Your task to perform on an android device: Go to wifi settings Image 0: 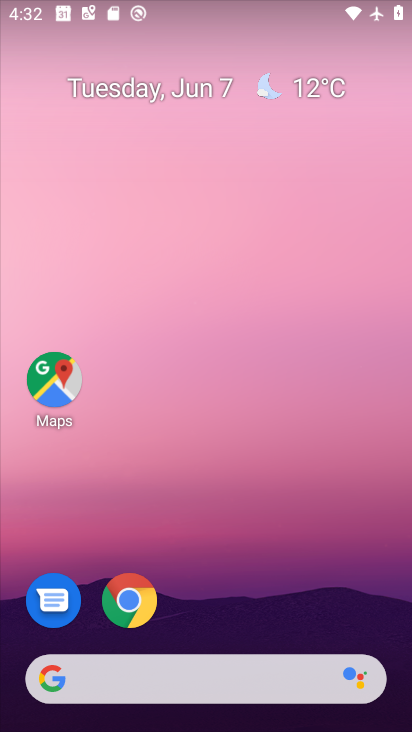
Step 0: drag from (221, 620) to (184, 257)
Your task to perform on an android device: Go to wifi settings Image 1: 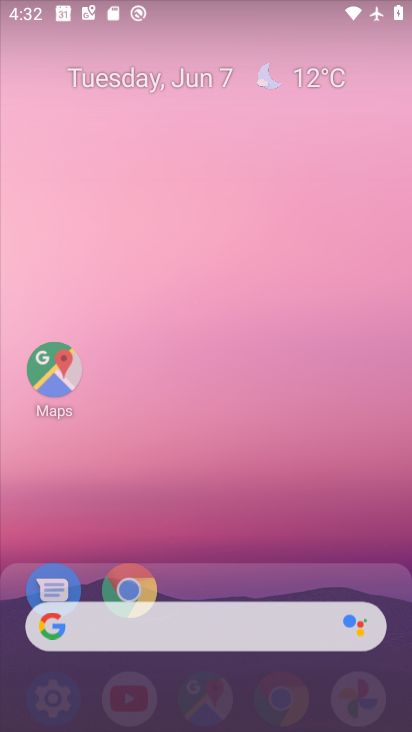
Step 1: click (172, 125)
Your task to perform on an android device: Go to wifi settings Image 2: 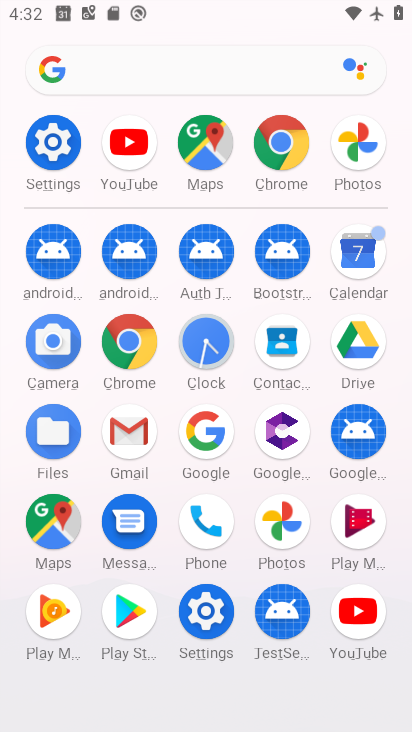
Step 2: click (57, 153)
Your task to perform on an android device: Go to wifi settings Image 3: 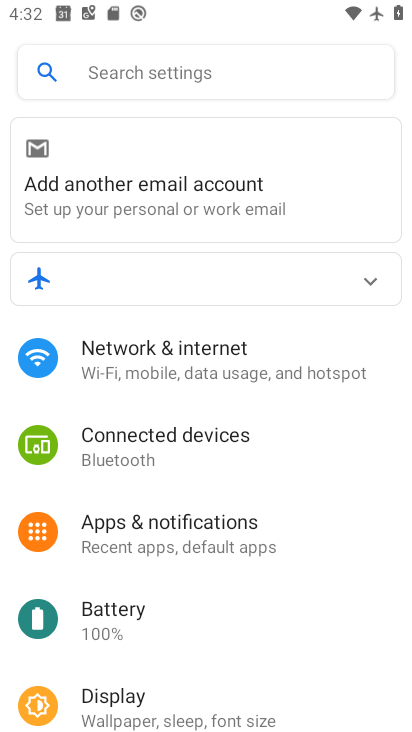
Step 3: click (193, 363)
Your task to perform on an android device: Go to wifi settings Image 4: 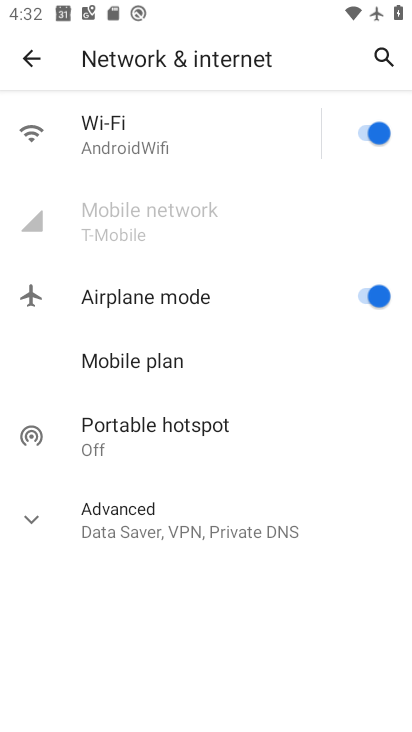
Step 4: click (197, 135)
Your task to perform on an android device: Go to wifi settings Image 5: 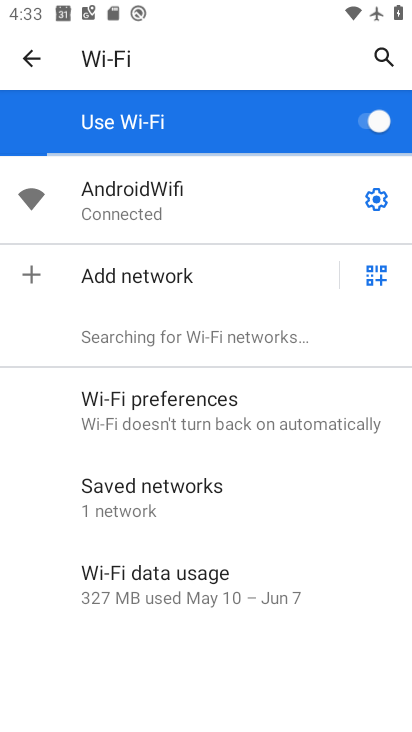
Step 5: task complete